Your task to perform on an android device: move a message to another label in the gmail app Image 0: 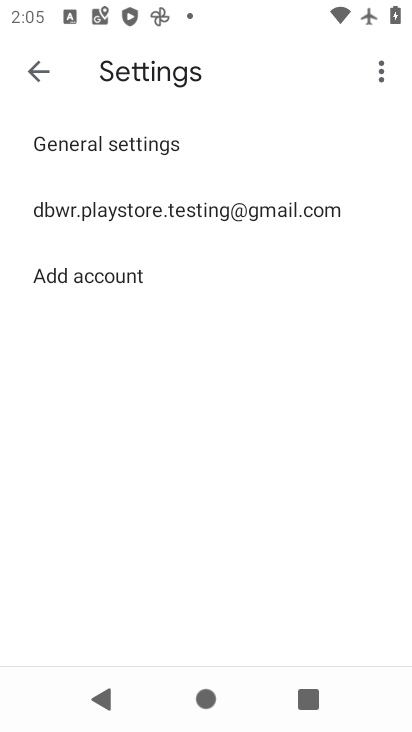
Step 0: press back button
Your task to perform on an android device: move a message to another label in the gmail app Image 1: 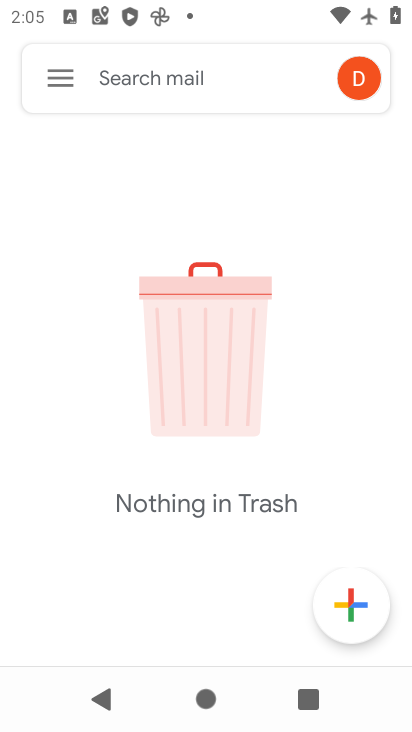
Step 1: click (63, 74)
Your task to perform on an android device: move a message to another label in the gmail app Image 2: 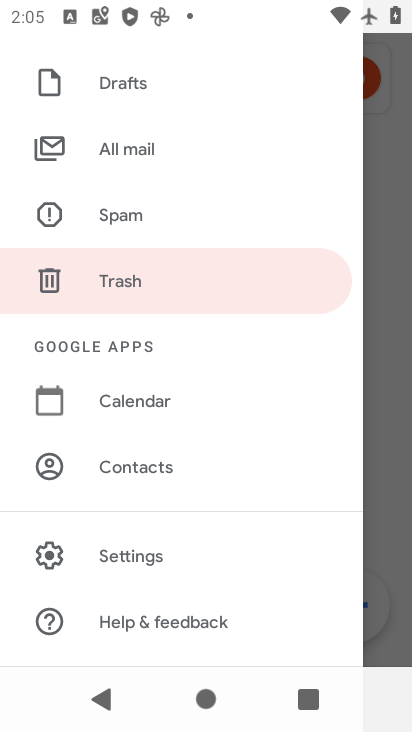
Step 2: click (143, 142)
Your task to perform on an android device: move a message to another label in the gmail app Image 3: 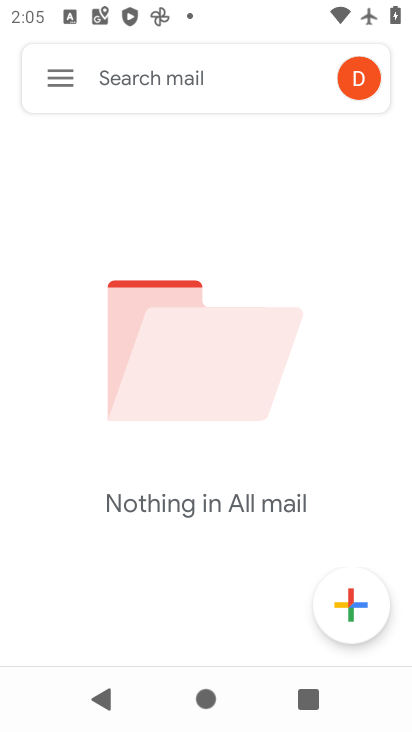
Step 3: task complete